Your task to perform on an android device: When is my next appointment? Image 0: 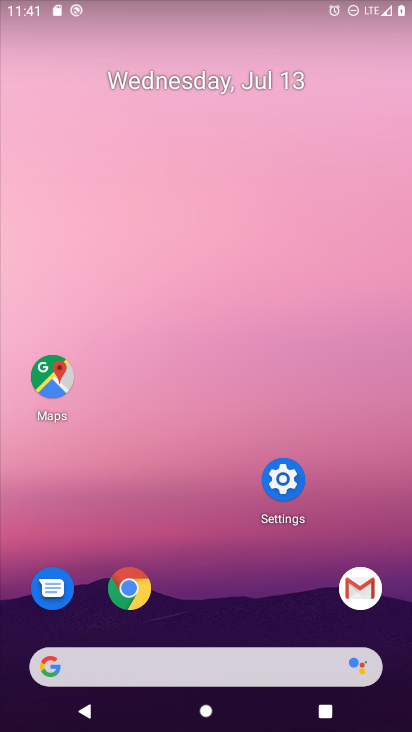
Step 0: drag from (263, 681) to (209, 150)
Your task to perform on an android device: When is my next appointment? Image 1: 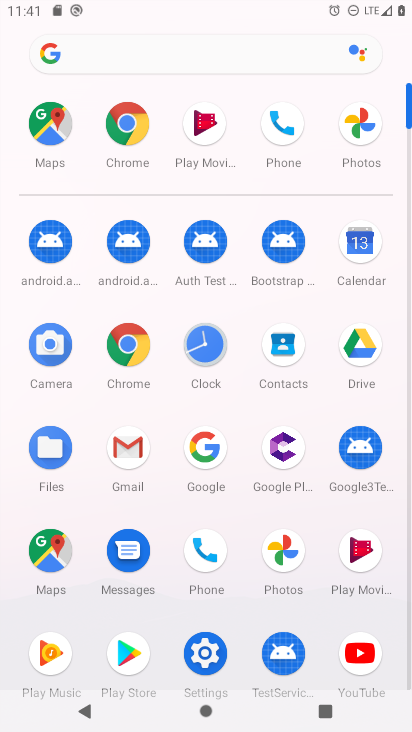
Step 1: click (356, 257)
Your task to perform on an android device: When is my next appointment? Image 2: 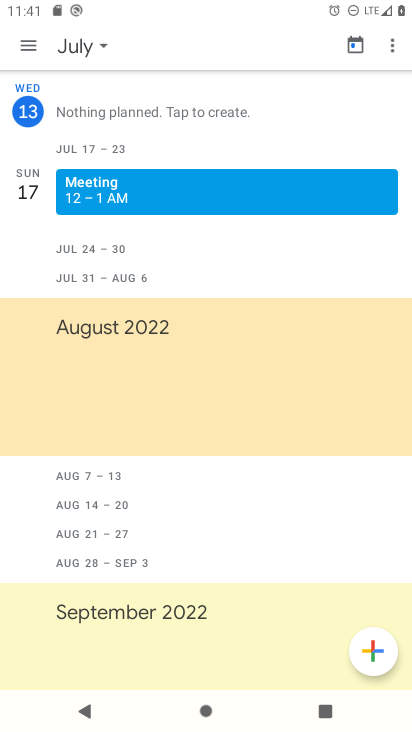
Step 2: click (15, 49)
Your task to perform on an android device: When is my next appointment? Image 3: 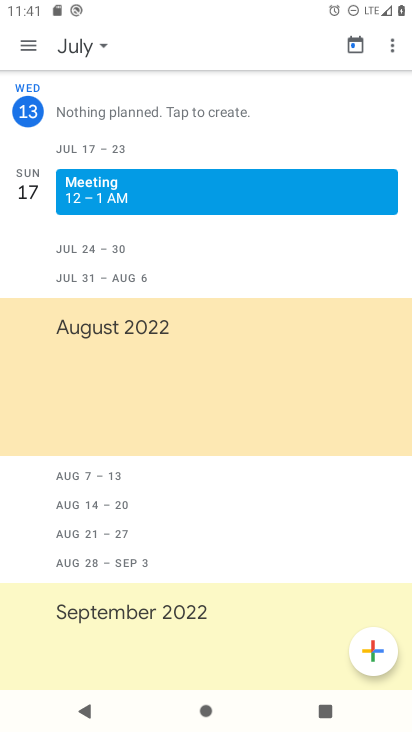
Step 3: click (21, 53)
Your task to perform on an android device: When is my next appointment? Image 4: 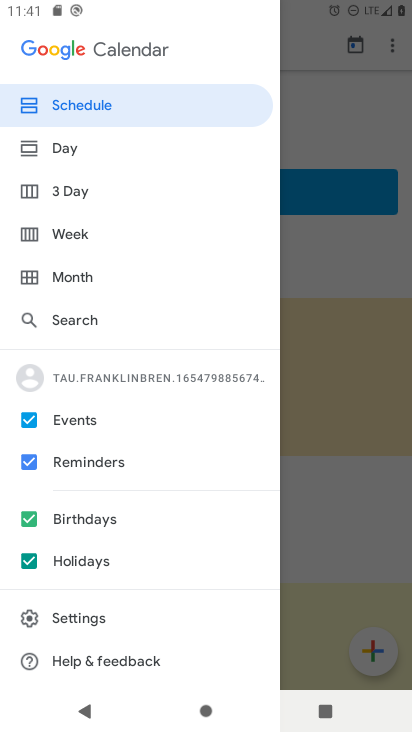
Step 4: click (95, 112)
Your task to perform on an android device: When is my next appointment? Image 5: 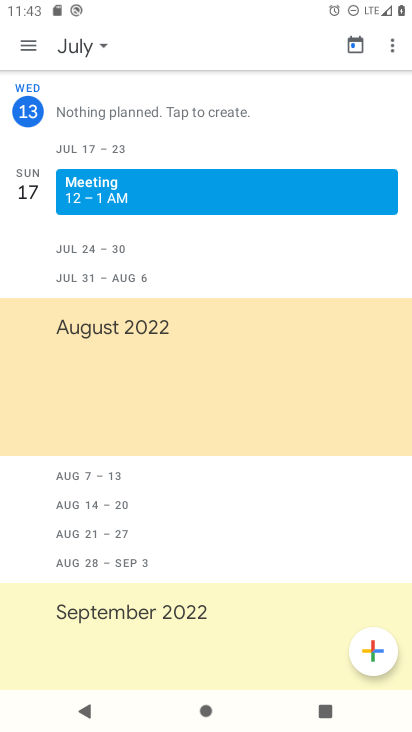
Step 5: task complete